Your task to perform on an android device: Open Chrome and go to settings Image 0: 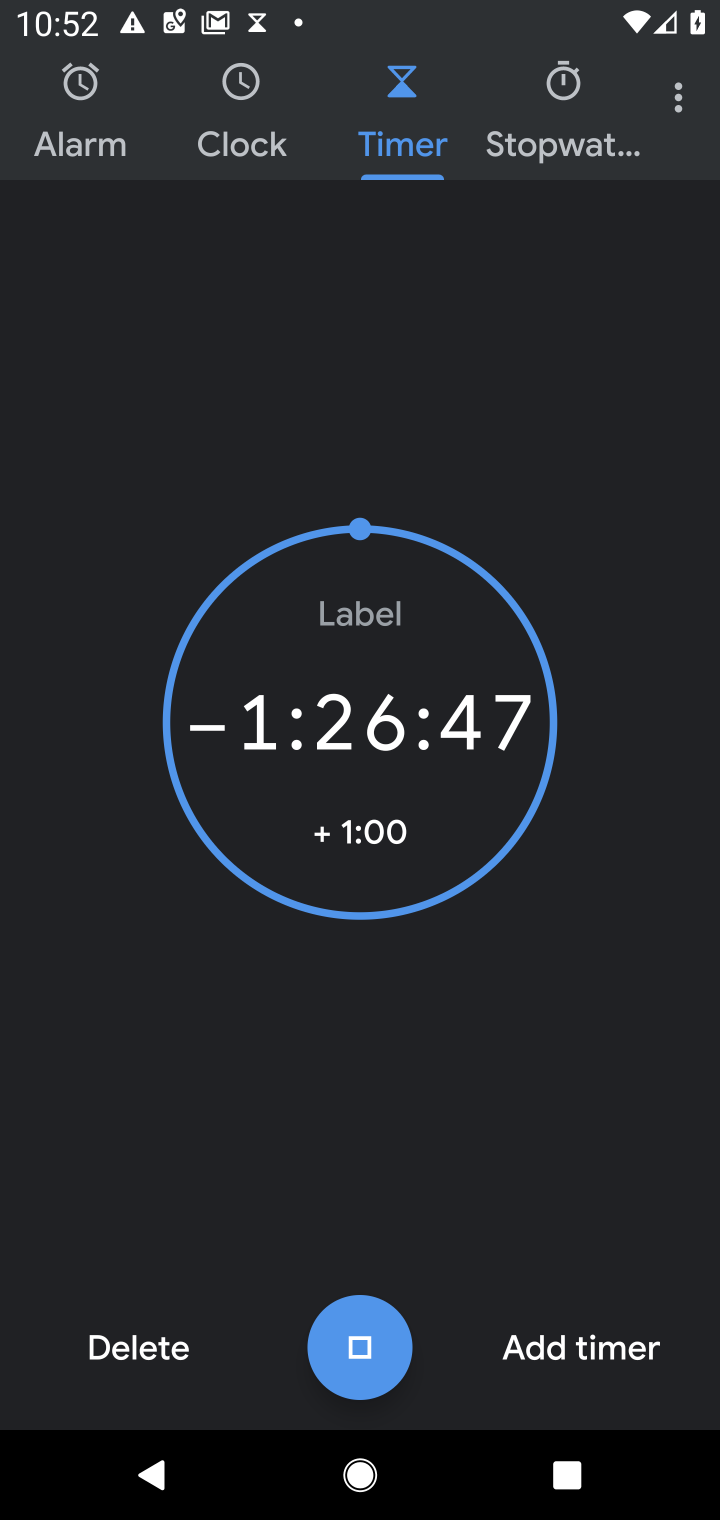
Step 0: press home button
Your task to perform on an android device: Open Chrome and go to settings Image 1: 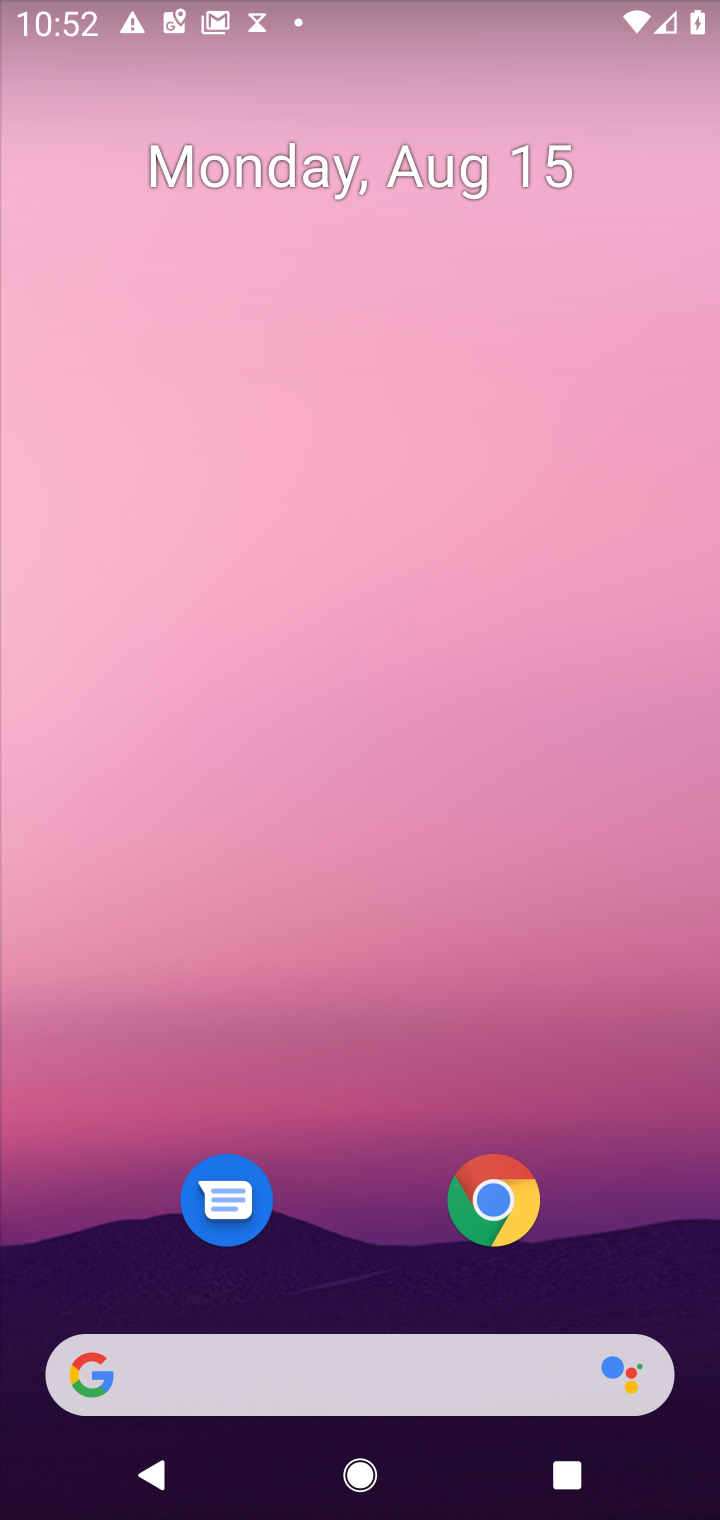
Step 1: press home button
Your task to perform on an android device: Open Chrome and go to settings Image 2: 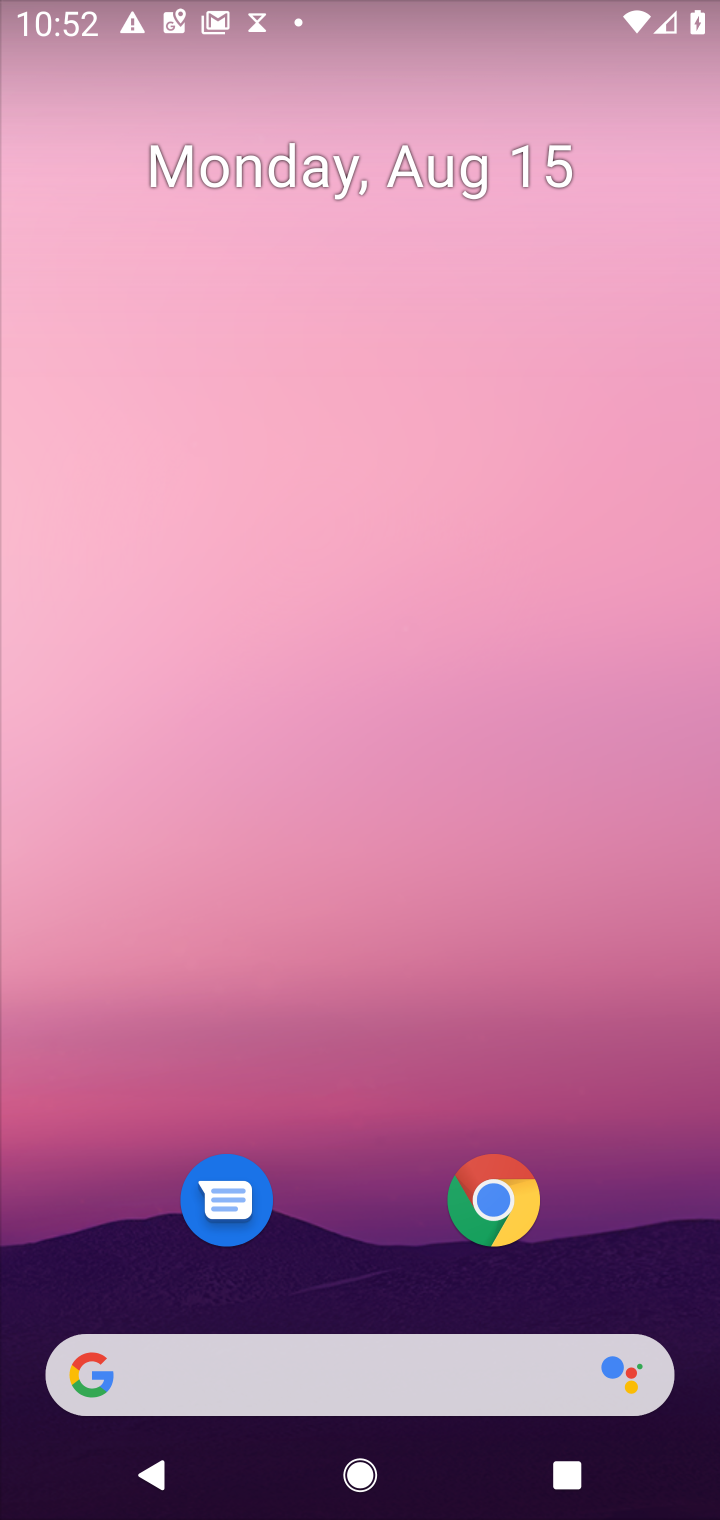
Step 2: click (500, 1187)
Your task to perform on an android device: Open Chrome and go to settings Image 3: 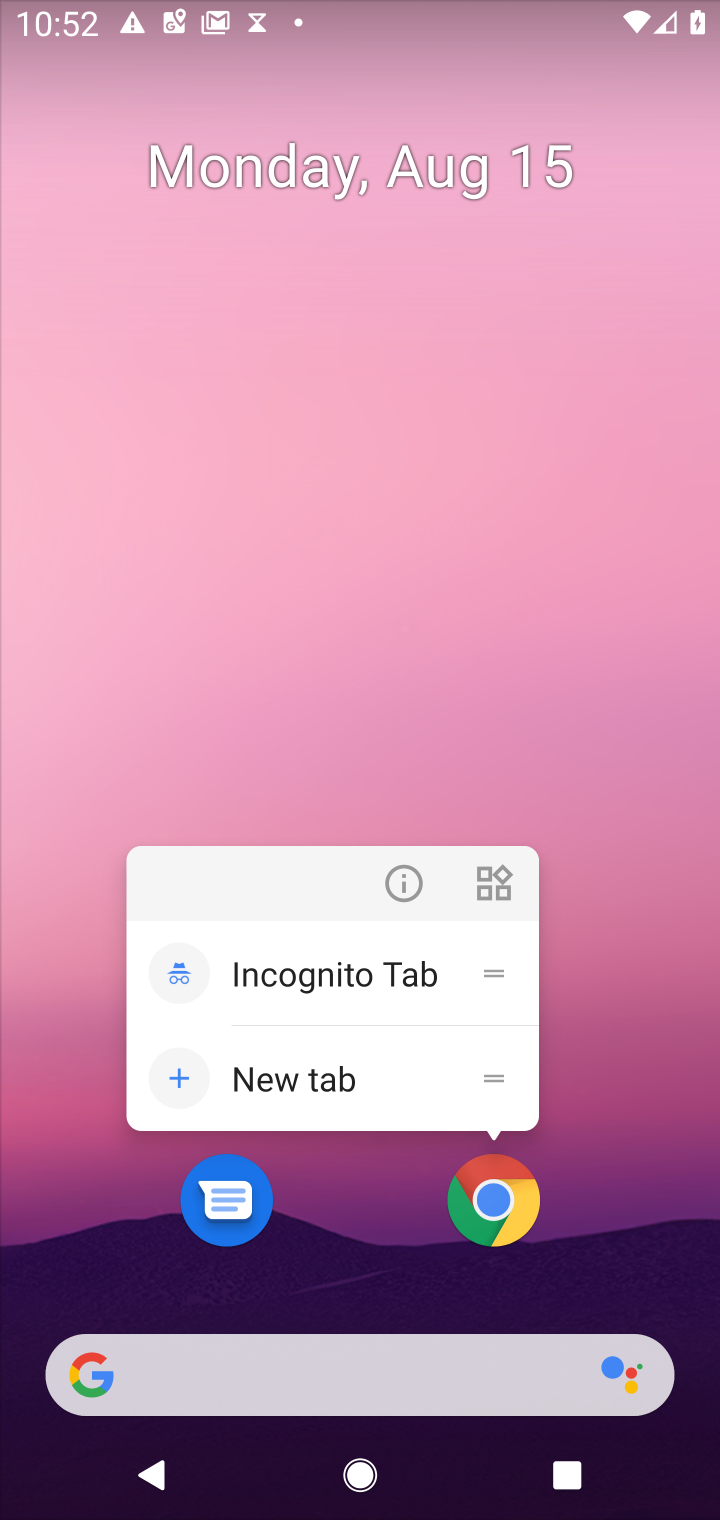
Step 3: click (500, 1187)
Your task to perform on an android device: Open Chrome and go to settings Image 4: 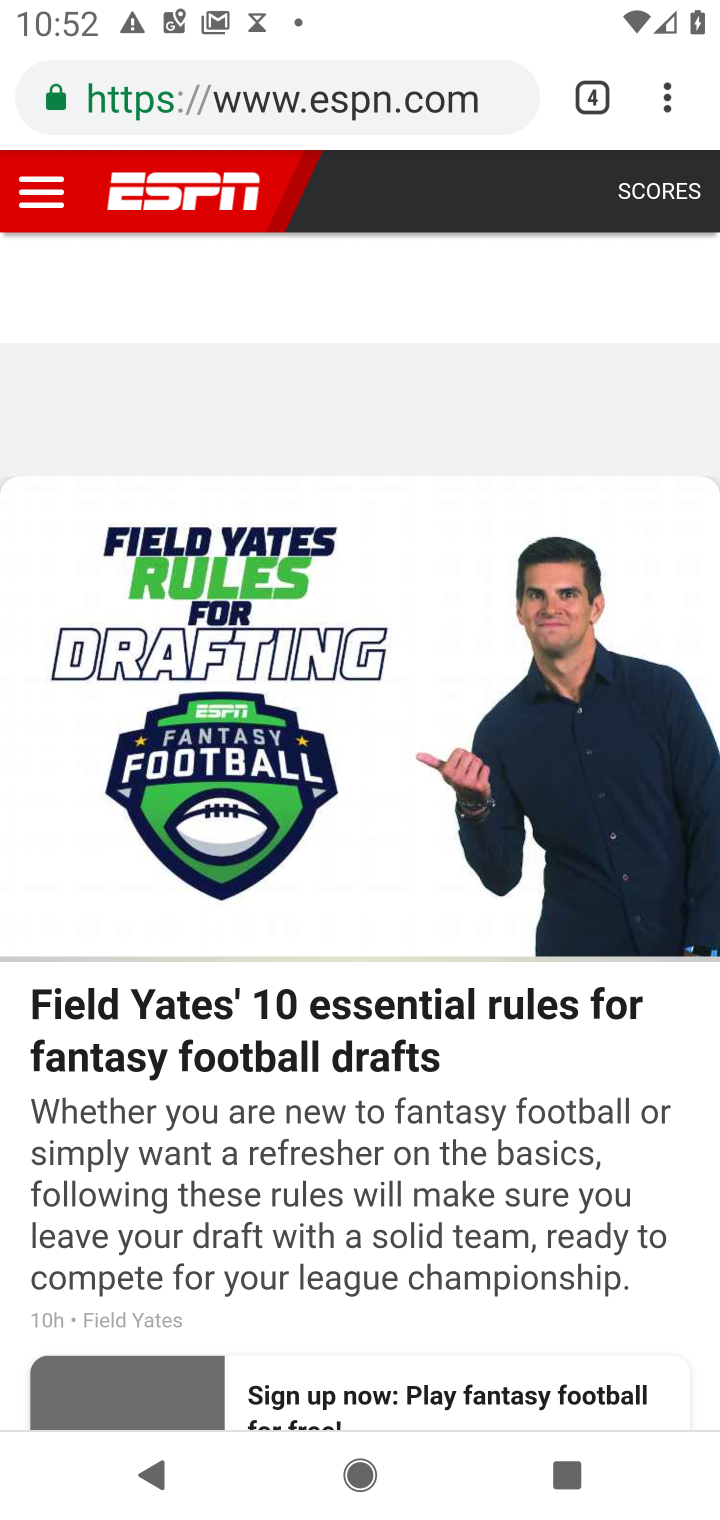
Step 4: click (655, 105)
Your task to perform on an android device: Open Chrome and go to settings Image 5: 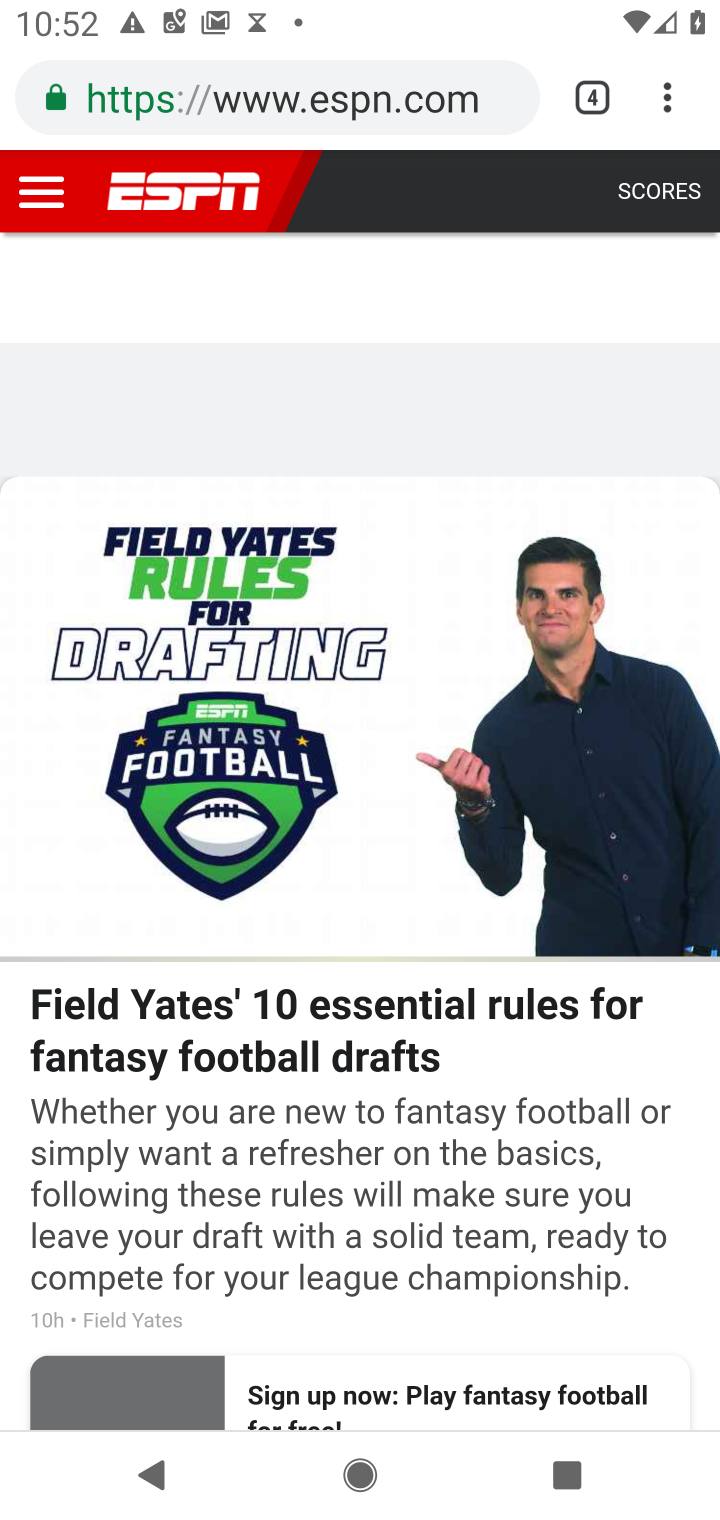
Step 5: click (663, 77)
Your task to perform on an android device: Open Chrome and go to settings Image 6: 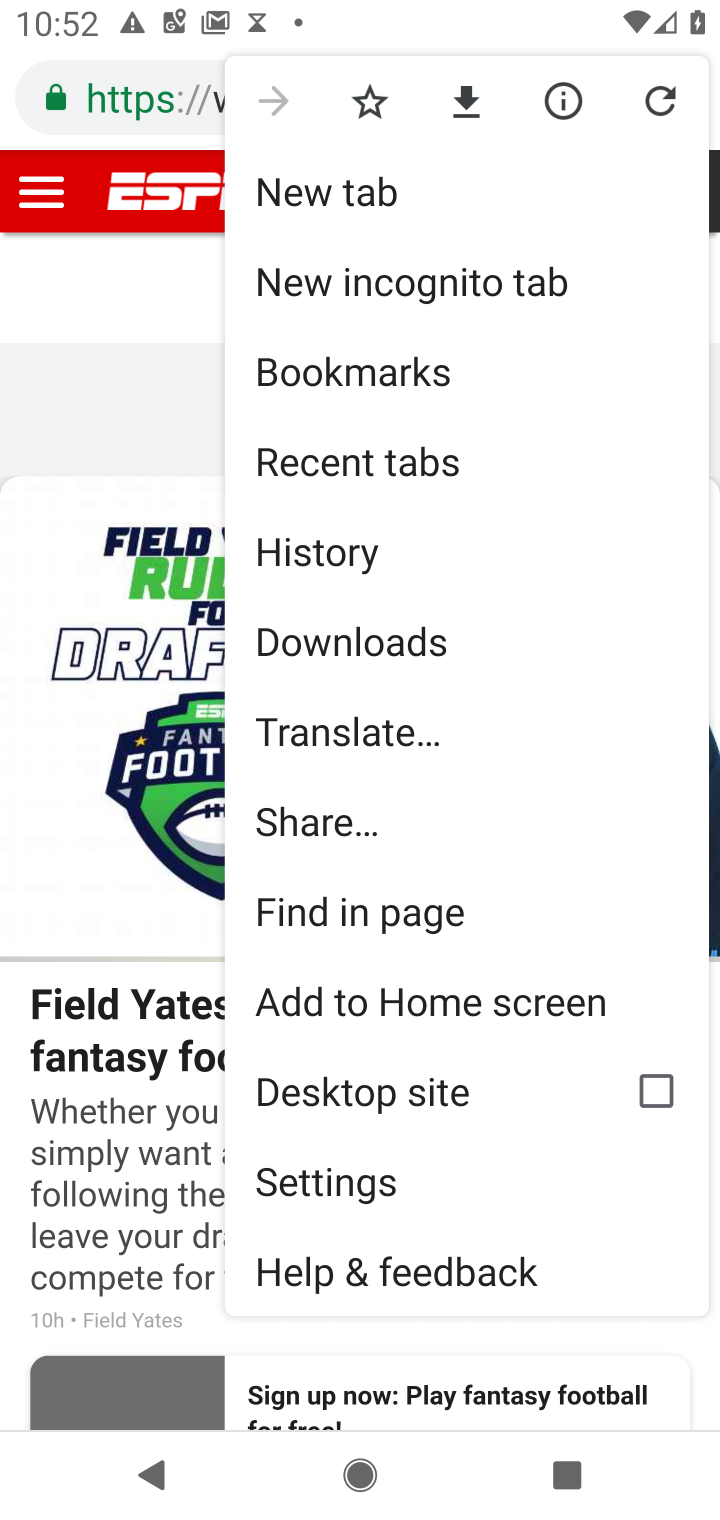
Step 6: click (339, 1174)
Your task to perform on an android device: Open Chrome and go to settings Image 7: 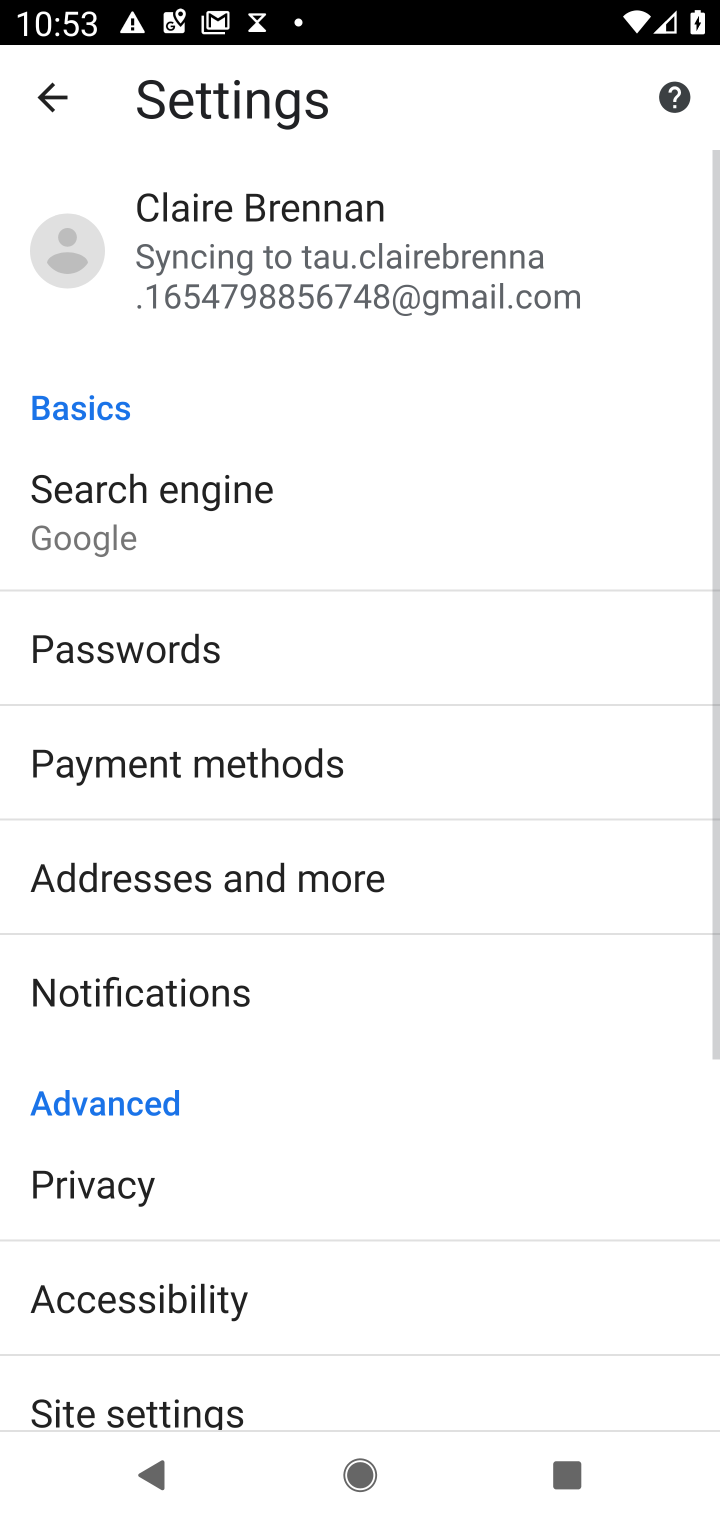
Step 7: task complete